Your task to perform on an android device: Show me the alarms in the clock app Image 0: 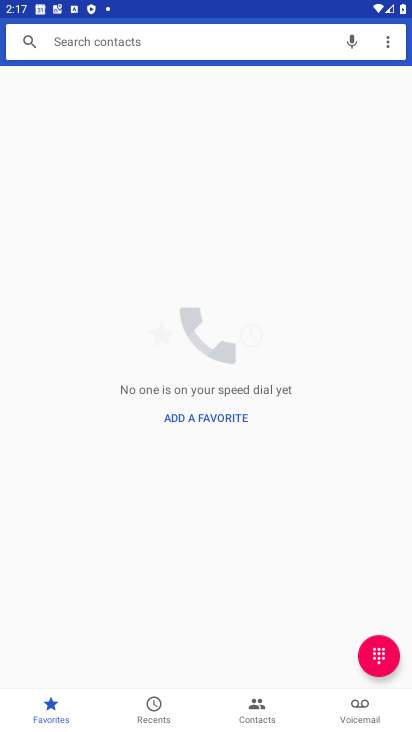
Step 0: press home button
Your task to perform on an android device: Show me the alarms in the clock app Image 1: 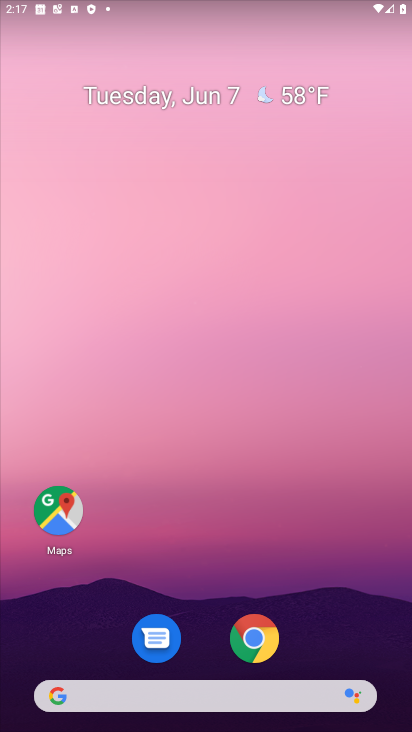
Step 1: drag from (206, 614) to (277, 240)
Your task to perform on an android device: Show me the alarms in the clock app Image 2: 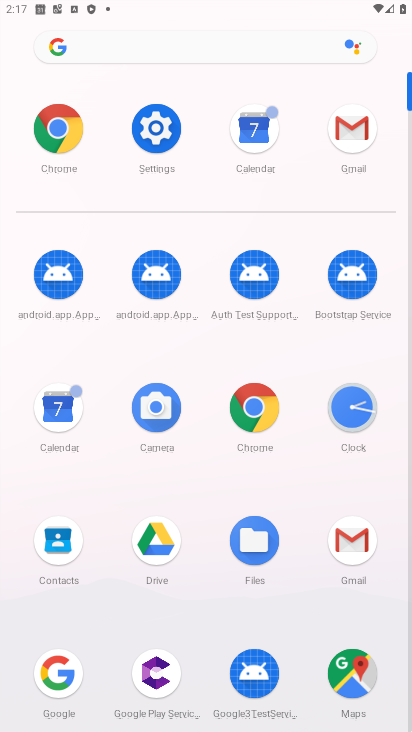
Step 2: drag from (190, 630) to (220, 320)
Your task to perform on an android device: Show me the alarms in the clock app Image 3: 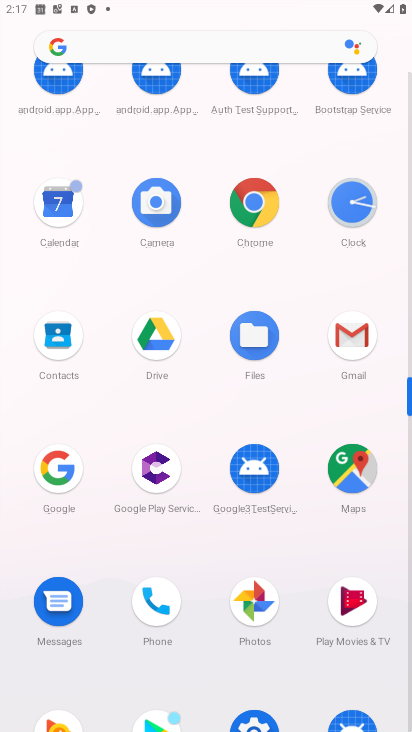
Step 3: drag from (217, 175) to (184, 353)
Your task to perform on an android device: Show me the alarms in the clock app Image 4: 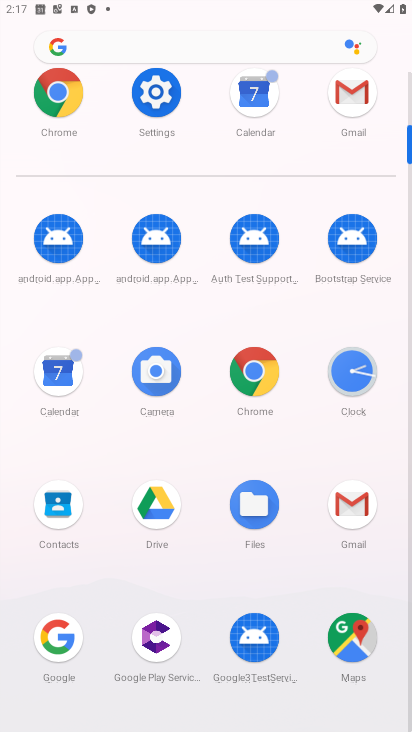
Step 4: click (373, 371)
Your task to perform on an android device: Show me the alarms in the clock app Image 5: 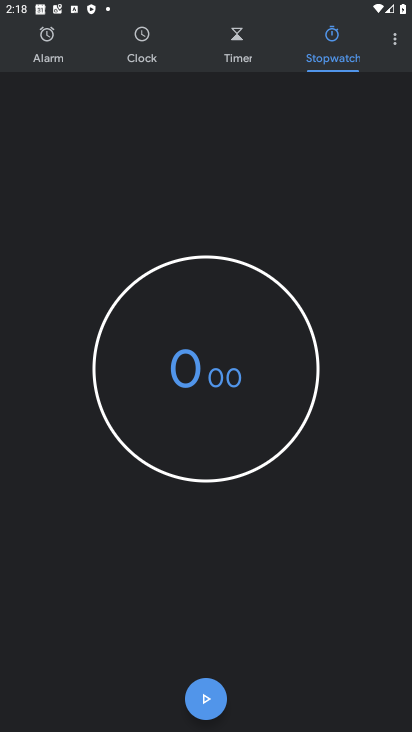
Step 5: click (51, 46)
Your task to perform on an android device: Show me the alarms in the clock app Image 6: 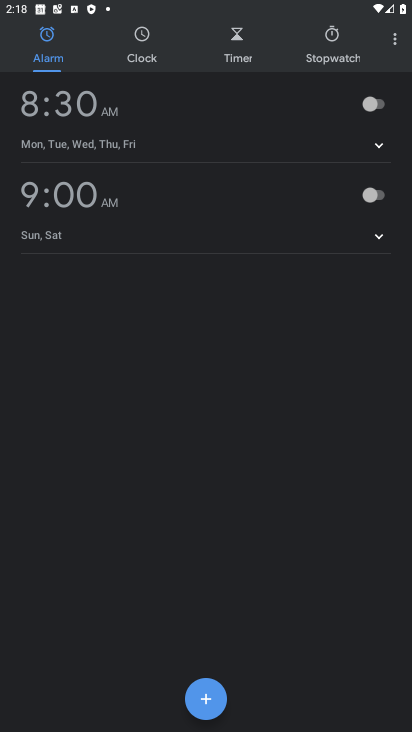
Step 6: task complete